Your task to perform on an android device: Open my contact list Image 0: 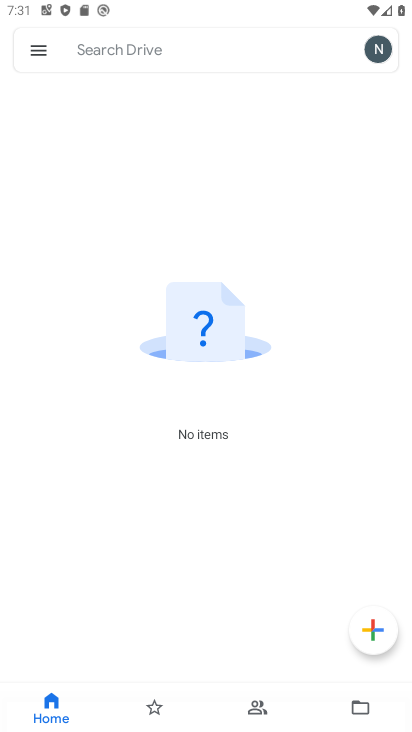
Step 0: press home button
Your task to perform on an android device: Open my contact list Image 1: 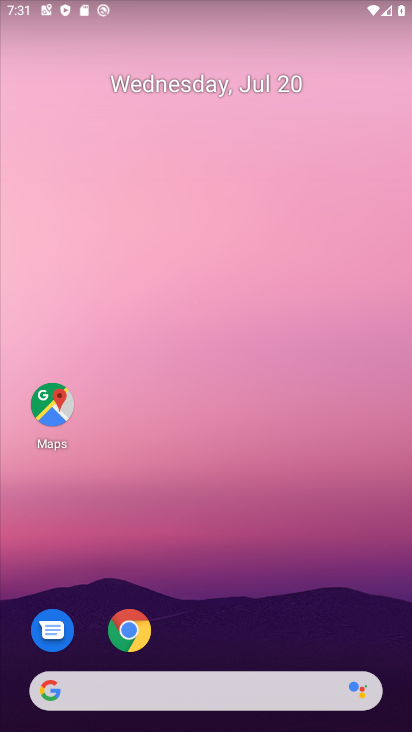
Step 1: drag from (186, 699) to (194, 155)
Your task to perform on an android device: Open my contact list Image 2: 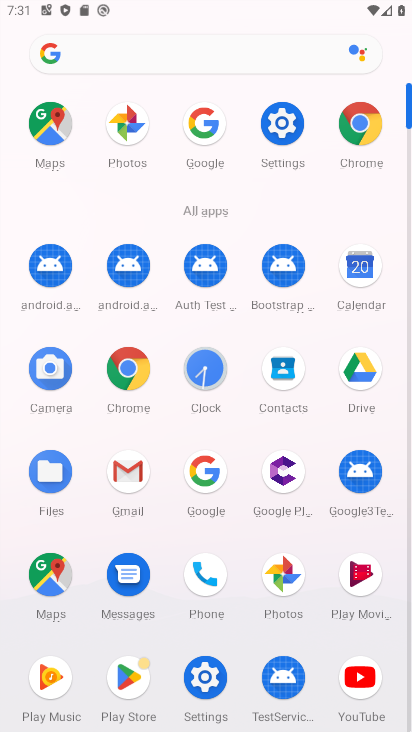
Step 2: click (279, 366)
Your task to perform on an android device: Open my contact list Image 3: 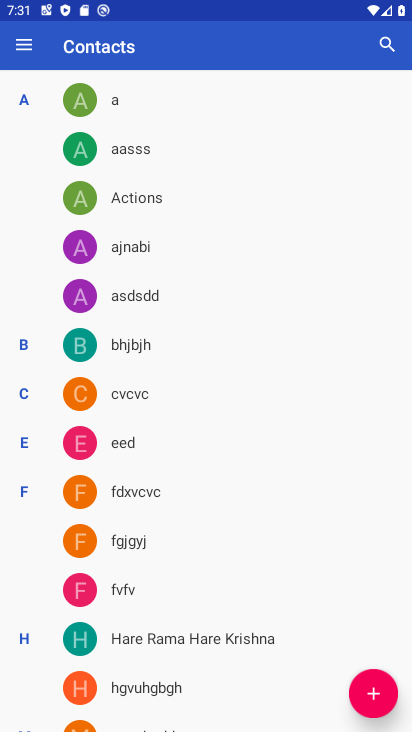
Step 3: task complete